Your task to perform on an android device: turn on javascript in the chrome app Image 0: 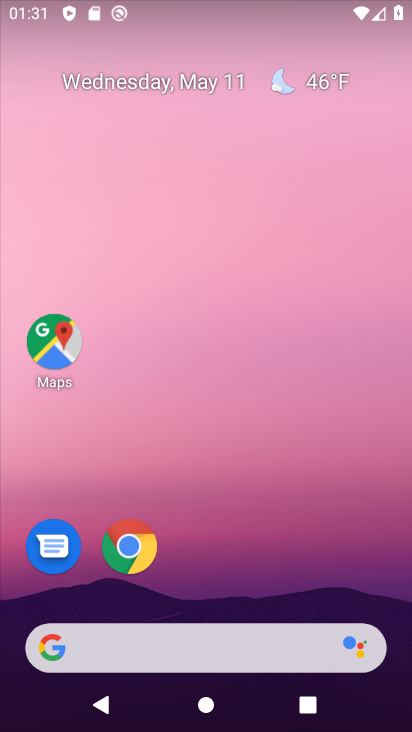
Step 0: drag from (200, 565) to (314, 32)
Your task to perform on an android device: turn on javascript in the chrome app Image 1: 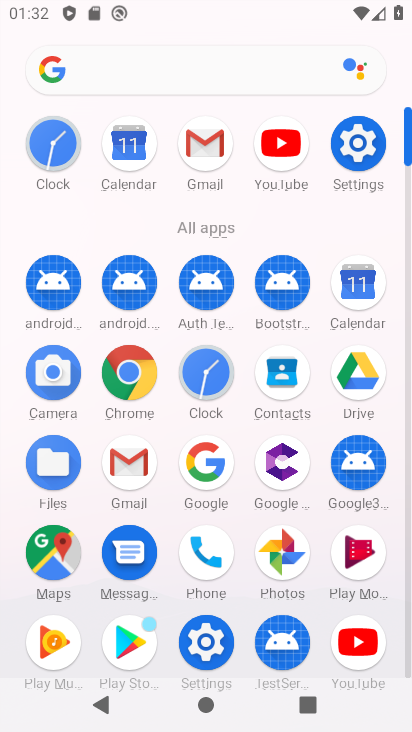
Step 1: click (128, 361)
Your task to perform on an android device: turn on javascript in the chrome app Image 2: 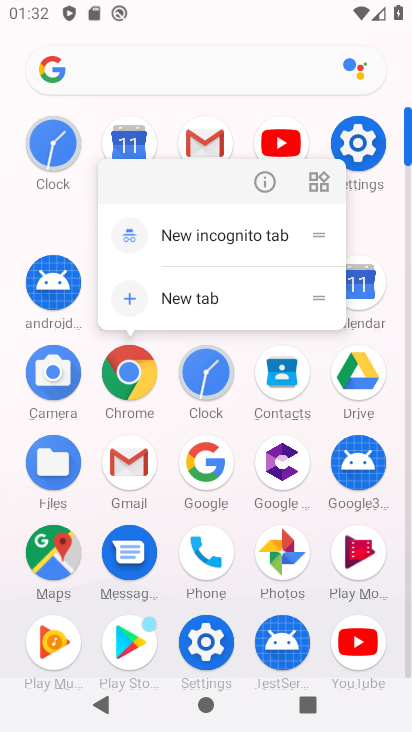
Step 2: click (259, 187)
Your task to perform on an android device: turn on javascript in the chrome app Image 3: 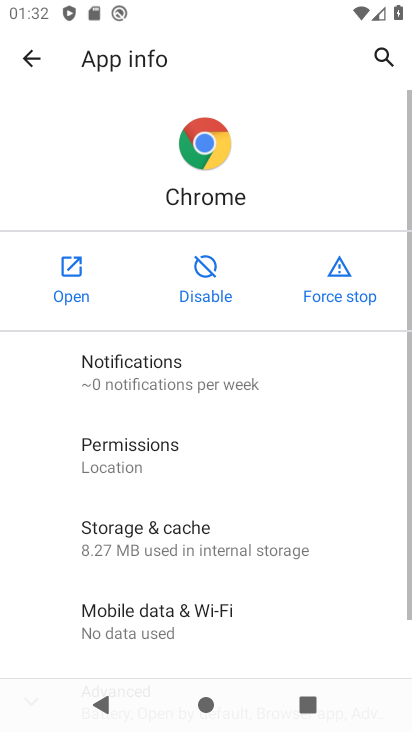
Step 3: click (74, 265)
Your task to perform on an android device: turn on javascript in the chrome app Image 4: 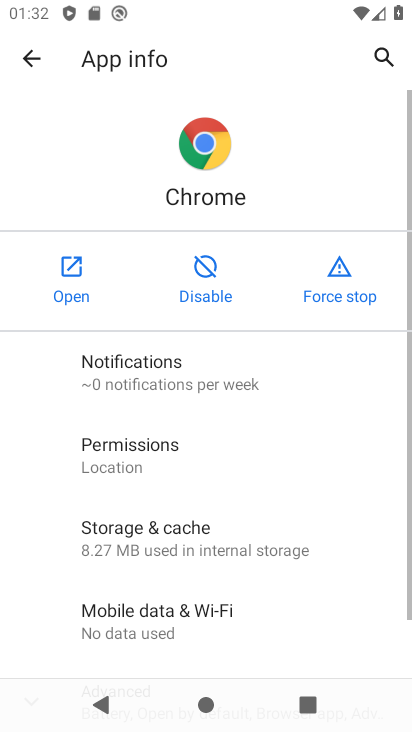
Step 4: click (74, 265)
Your task to perform on an android device: turn on javascript in the chrome app Image 5: 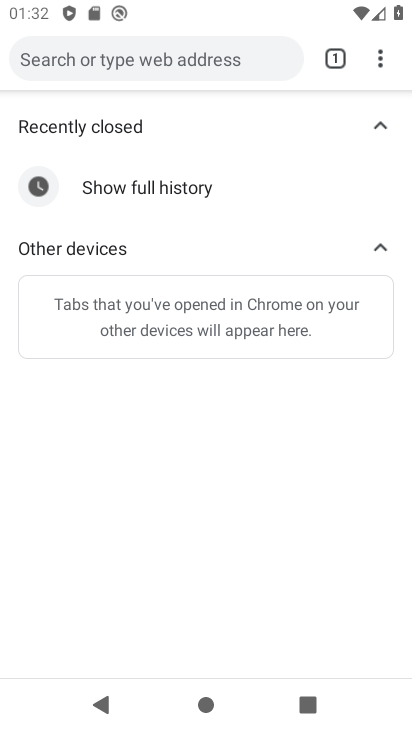
Step 5: click (382, 47)
Your task to perform on an android device: turn on javascript in the chrome app Image 6: 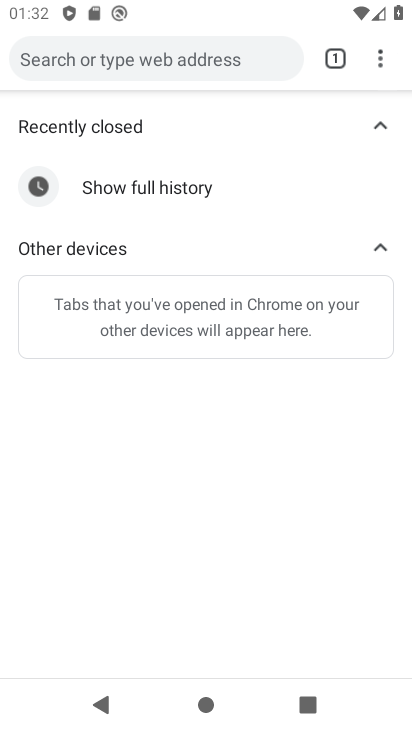
Step 6: click (382, 47)
Your task to perform on an android device: turn on javascript in the chrome app Image 7: 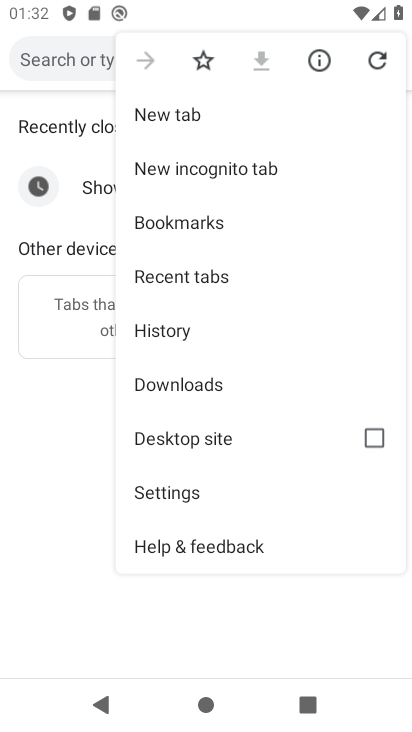
Step 7: click (188, 484)
Your task to perform on an android device: turn on javascript in the chrome app Image 8: 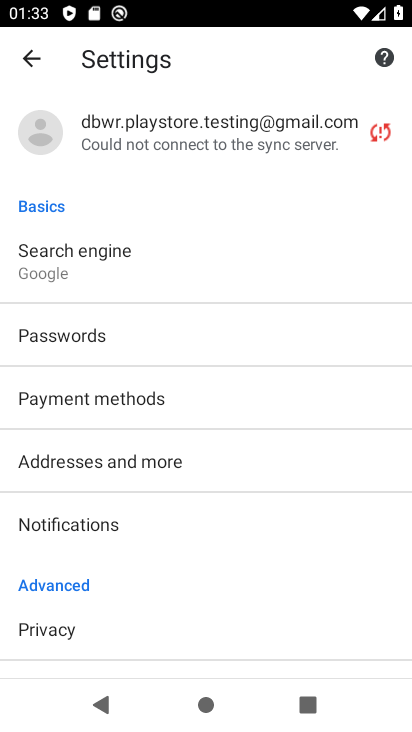
Step 8: drag from (189, 588) to (265, 205)
Your task to perform on an android device: turn on javascript in the chrome app Image 9: 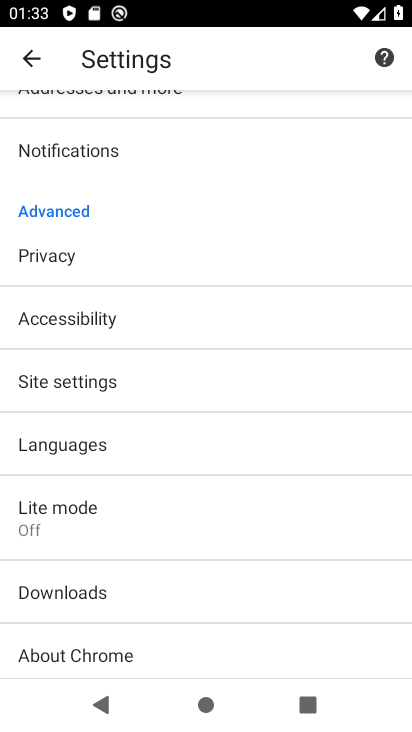
Step 9: click (82, 375)
Your task to perform on an android device: turn on javascript in the chrome app Image 10: 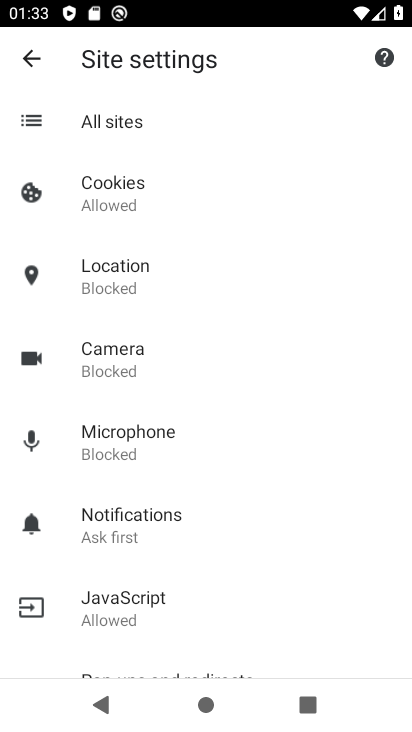
Step 10: click (183, 588)
Your task to perform on an android device: turn on javascript in the chrome app Image 11: 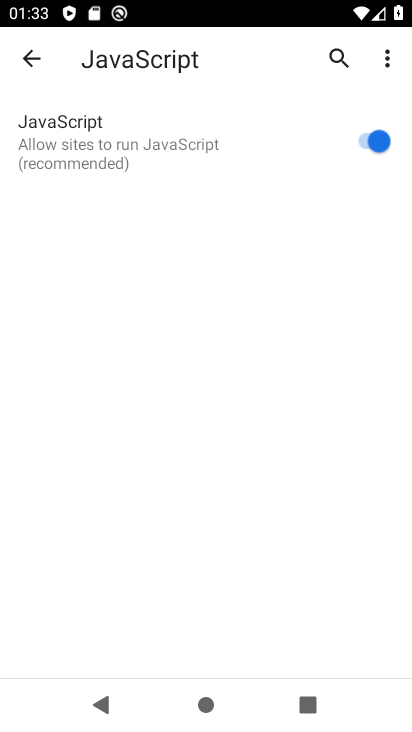
Step 11: task complete